Your task to perform on an android device: Open calendar and show me the first week of next month Image 0: 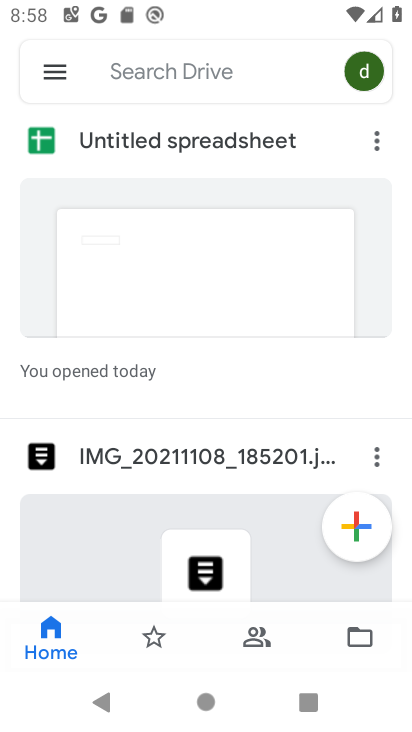
Step 0: press home button
Your task to perform on an android device: Open calendar and show me the first week of next month Image 1: 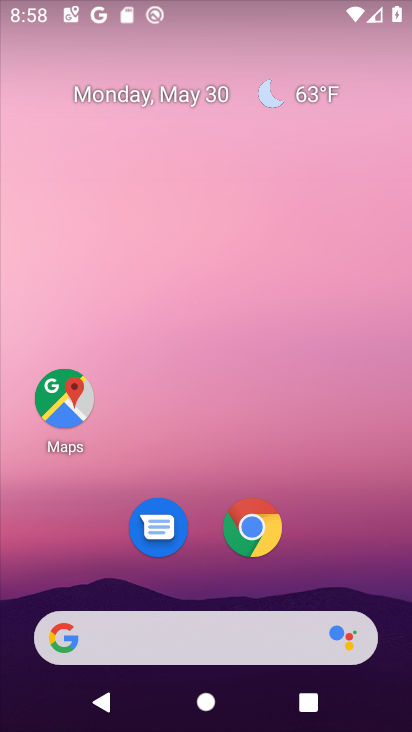
Step 1: drag from (331, 598) to (245, 268)
Your task to perform on an android device: Open calendar and show me the first week of next month Image 2: 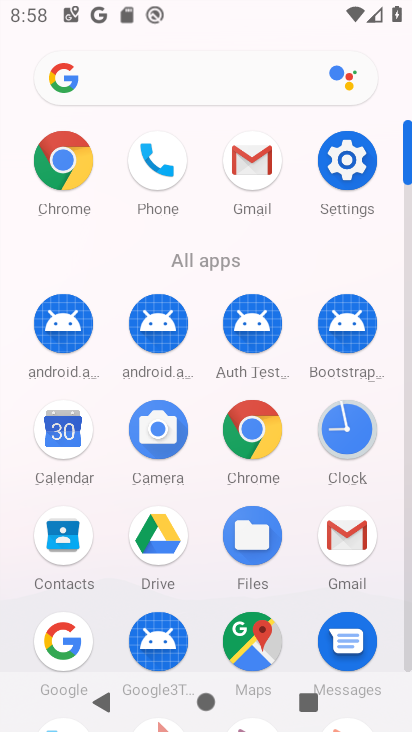
Step 2: click (76, 432)
Your task to perform on an android device: Open calendar and show me the first week of next month Image 3: 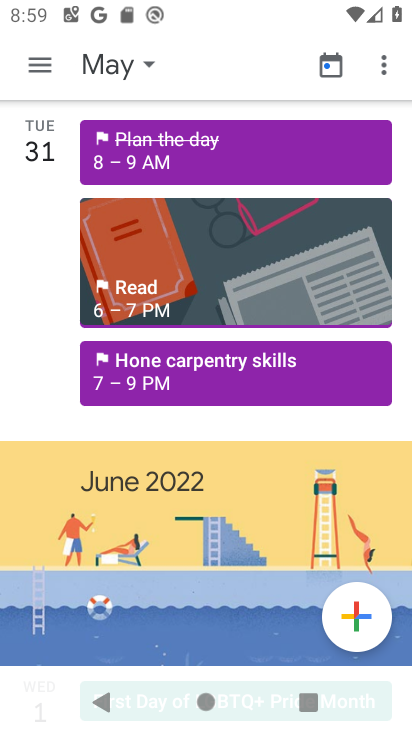
Step 3: click (46, 60)
Your task to perform on an android device: Open calendar and show me the first week of next month Image 4: 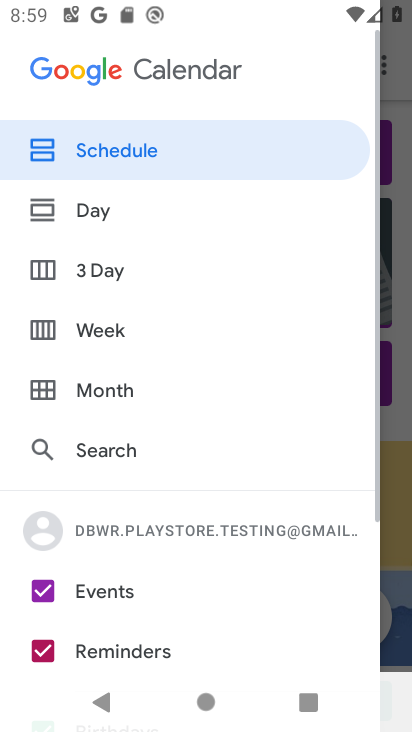
Step 4: click (118, 383)
Your task to perform on an android device: Open calendar and show me the first week of next month Image 5: 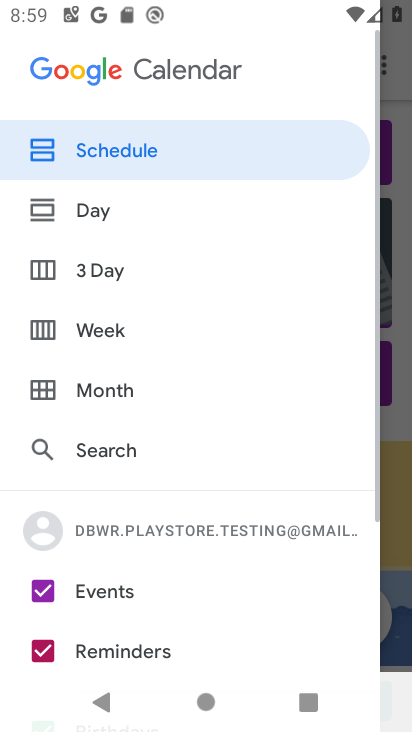
Step 5: click (118, 383)
Your task to perform on an android device: Open calendar and show me the first week of next month Image 6: 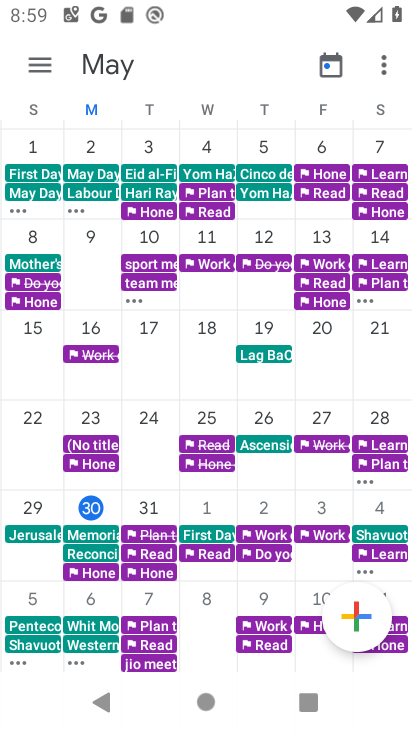
Step 6: task complete